Your task to perform on an android device: What is the recent news? Image 0: 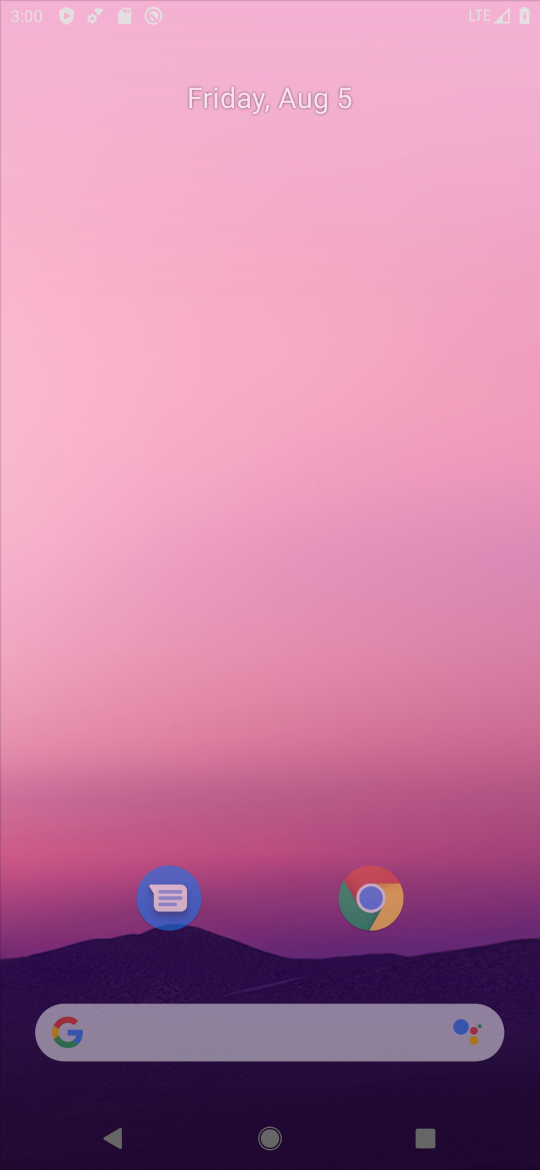
Step 0: press home button
Your task to perform on an android device: What is the recent news? Image 1: 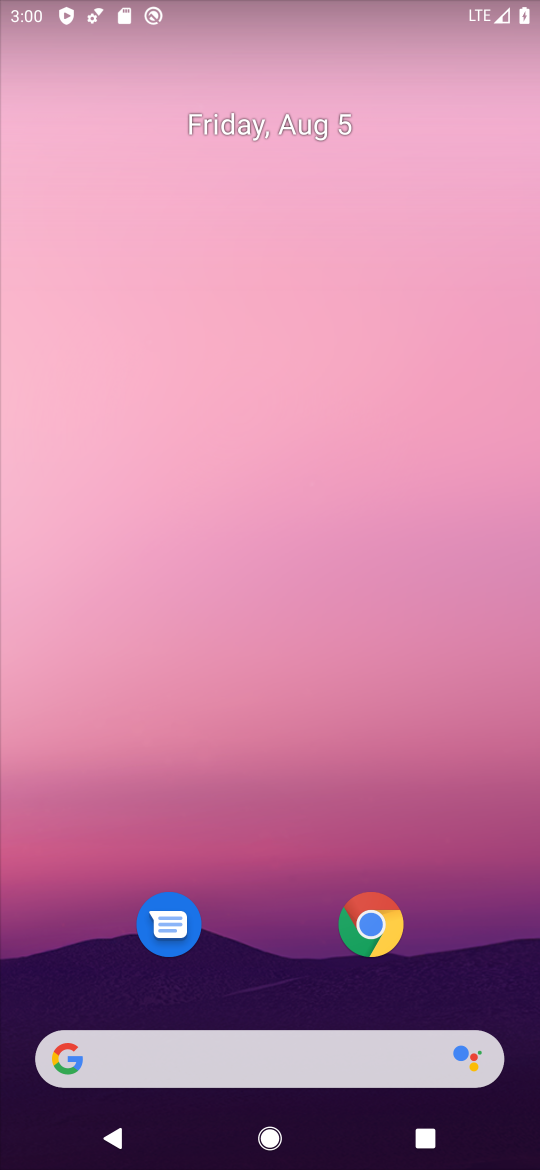
Step 1: drag from (442, 641) to (460, 177)
Your task to perform on an android device: What is the recent news? Image 2: 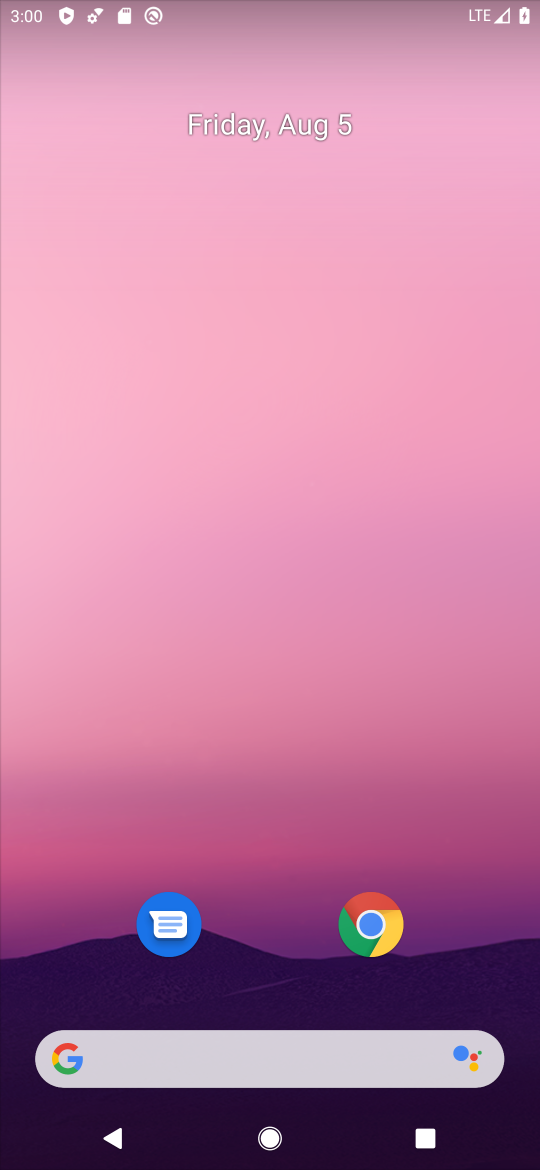
Step 2: drag from (241, 856) to (368, 122)
Your task to perform on an android device: What is the recent news? Image 3: 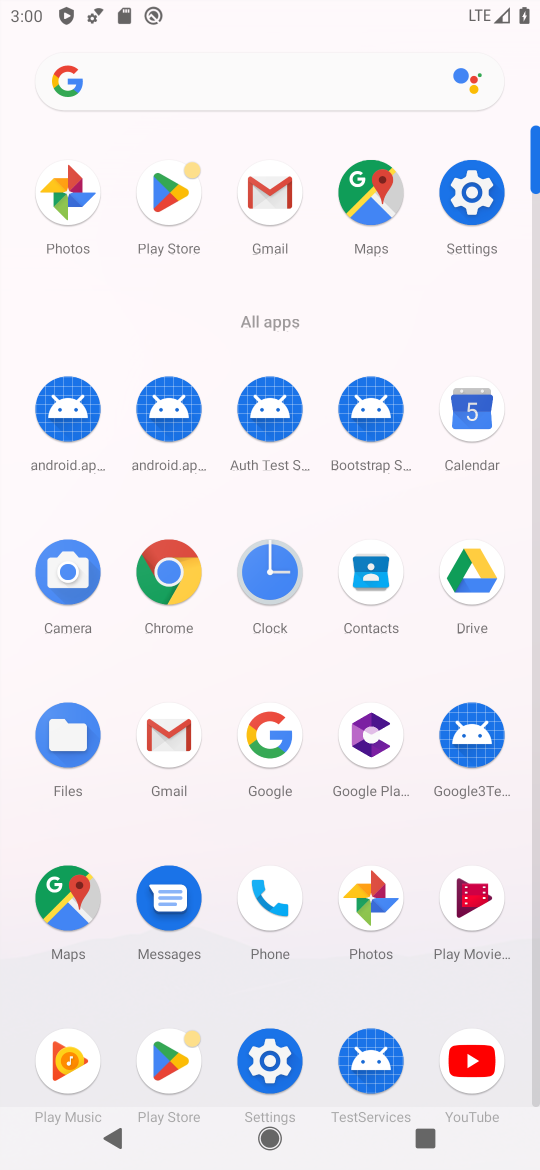
Step 3: click (365, 912)
Your task to perform on an android device: What is the recent news? Image 4: 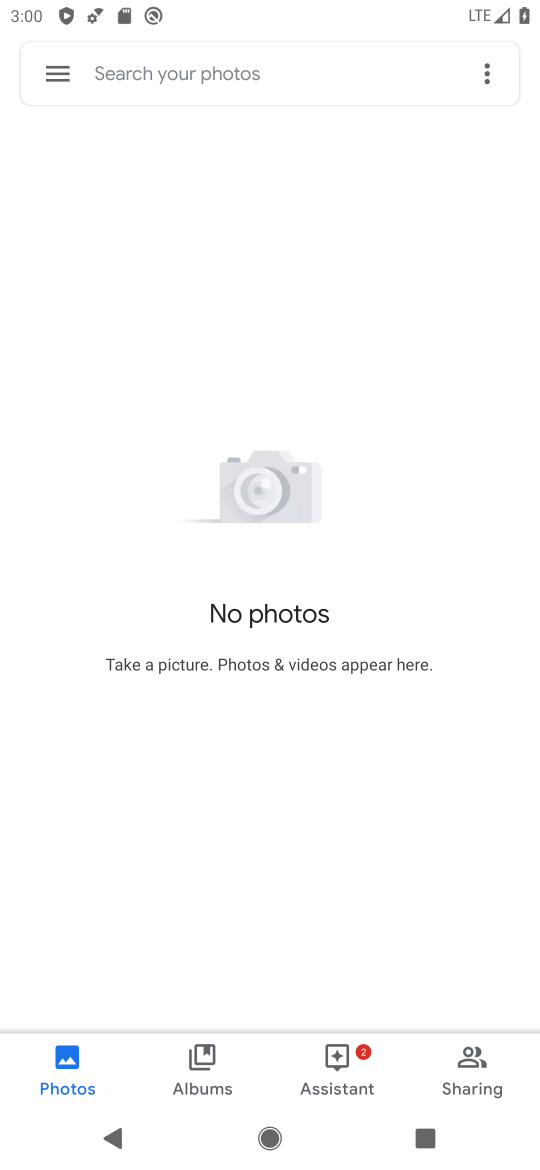
Step 4: press home button
Your task to perform on an android device: What is the recent news? Image 5: 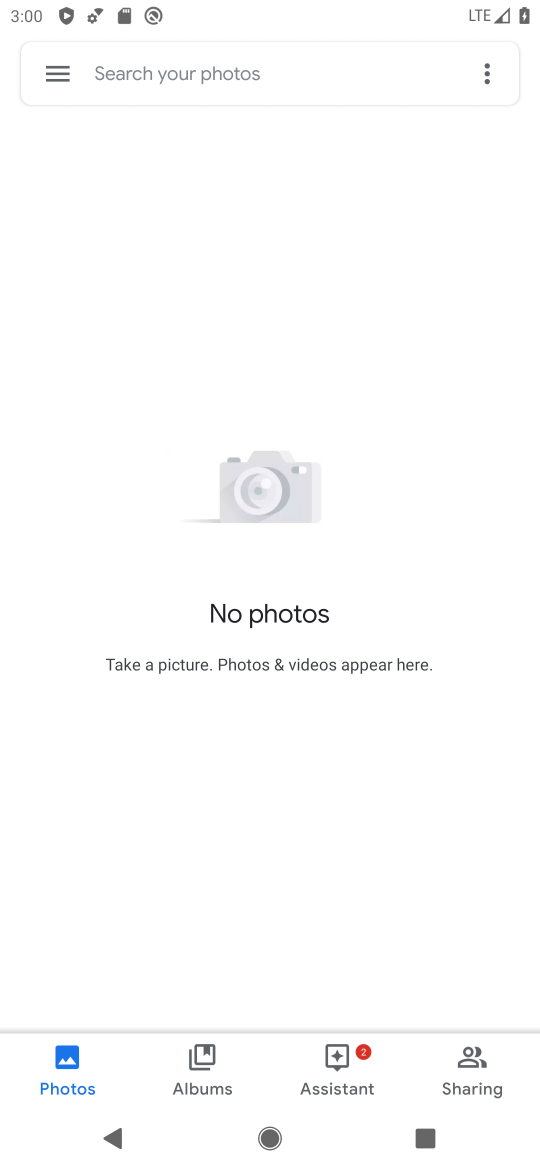
Step 5: press home button
Your task to perform on an android device: What is the recent news? Image 6: 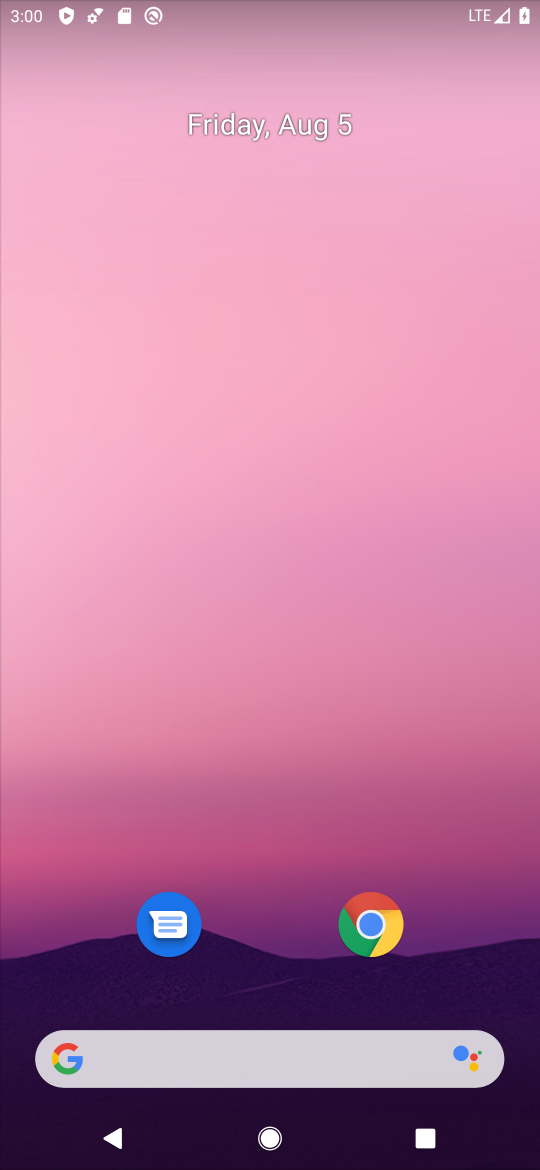
Step 6: drag from (274, 929) to (351, 172)
Your task to perform on an android device: What is the recent news? Image 7: 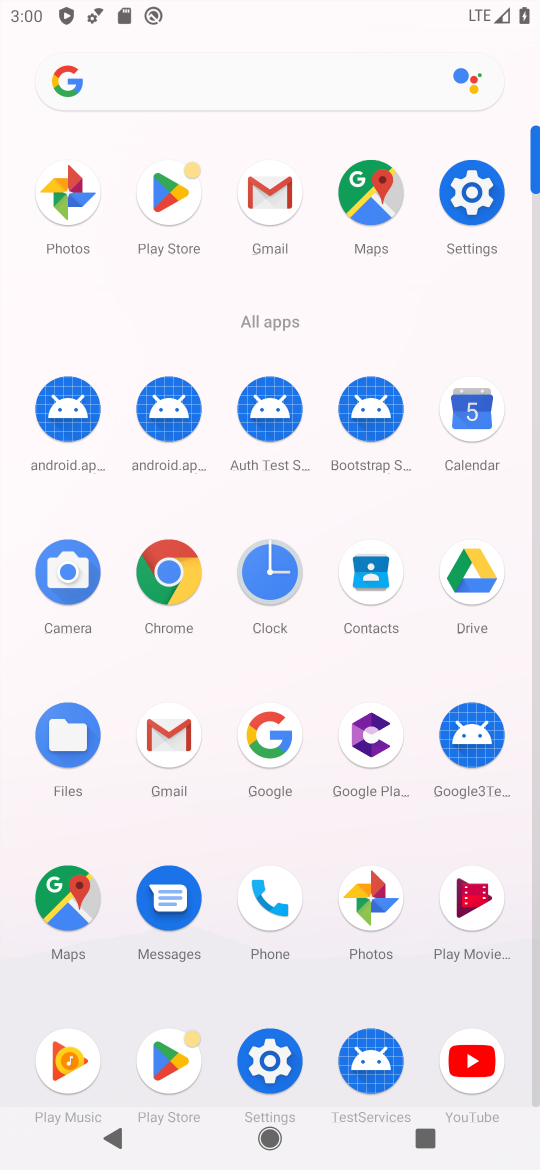
Step 7: click (163, 566)
Your task to perform on an android device: What is the recent news? Image 8: 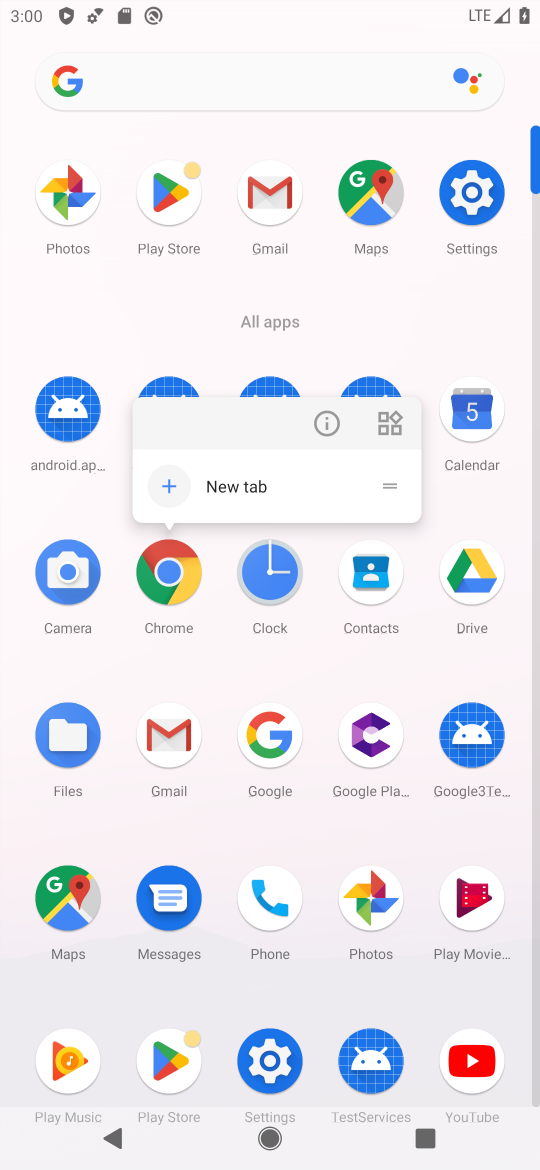
Step 8: click (169, 571)
Your task to perform on an android device: What is the recent news? Image 9: 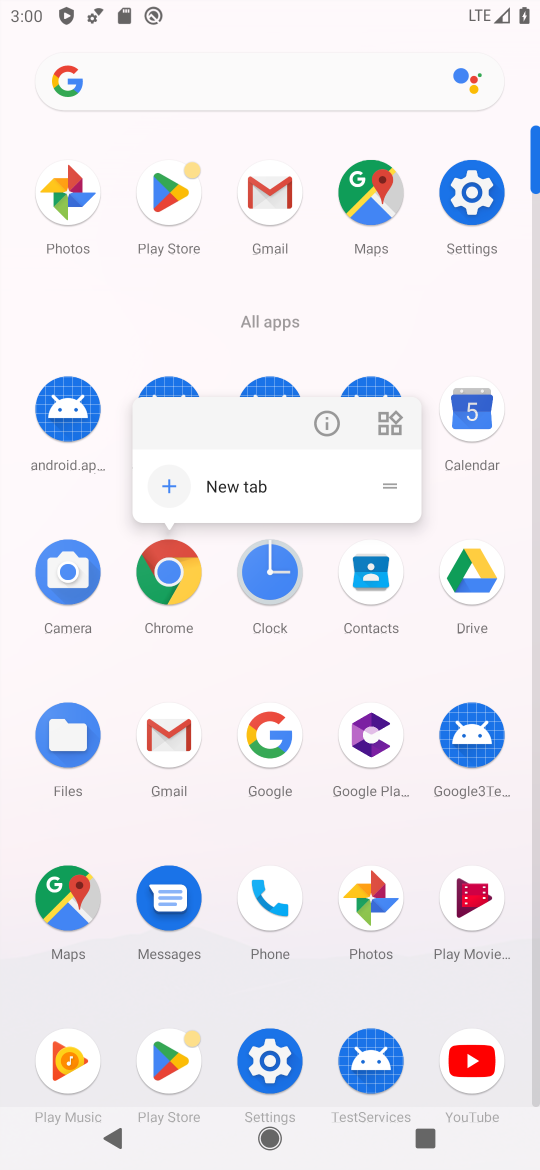
Step 9: click (169, 589)
Your task to perform on an android device: What is the recent news? Image 10: 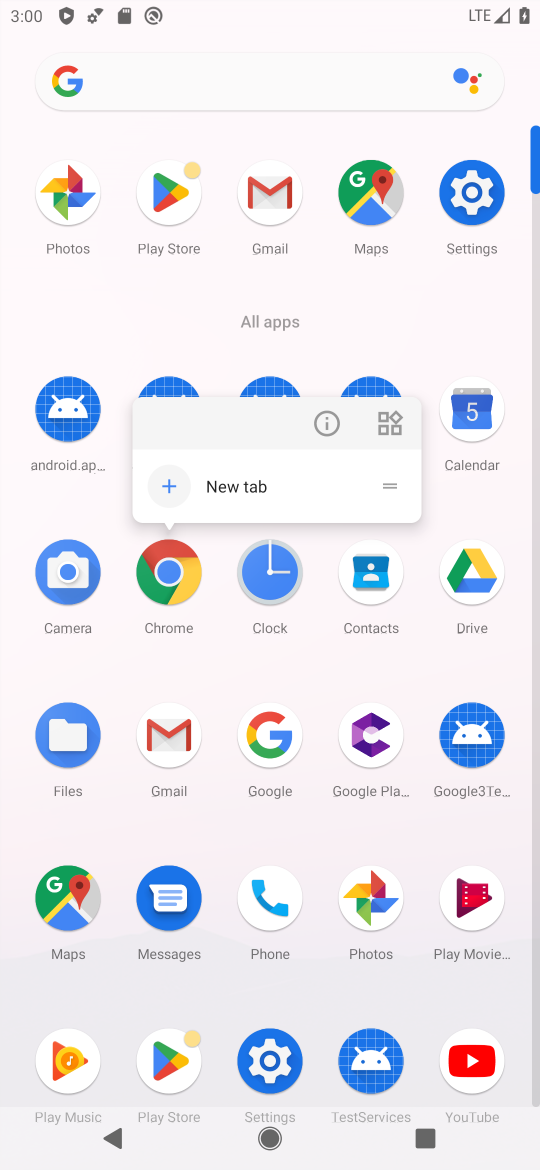
Step 10: click (169, 574)
Your task to perform on an android device: What is the recent news? Image 11: 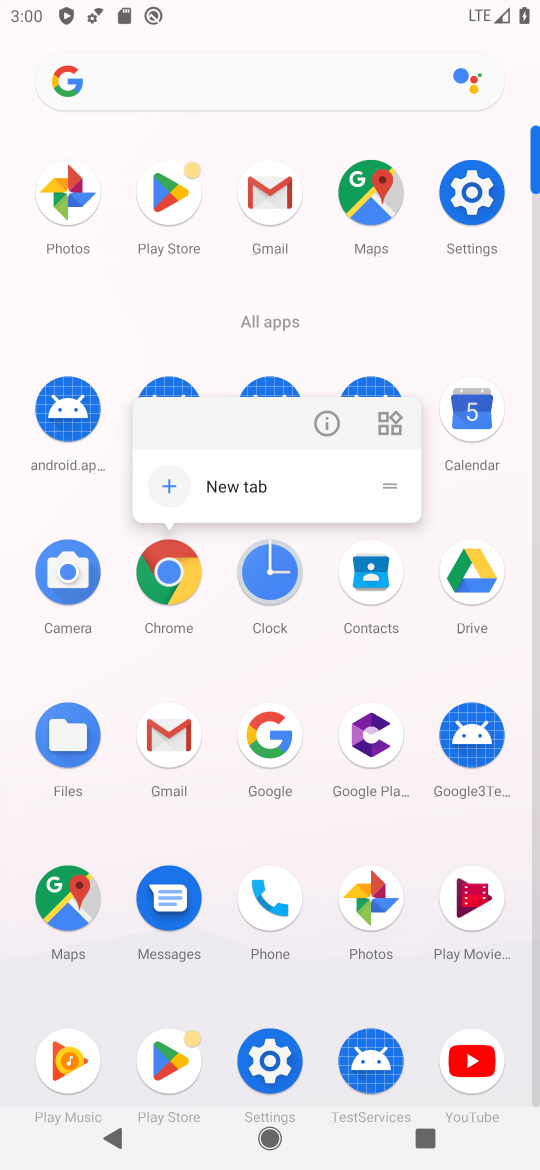
Step 11: click (239, 665)
Your task to perform on an android device: What is the recent news? Image 12: 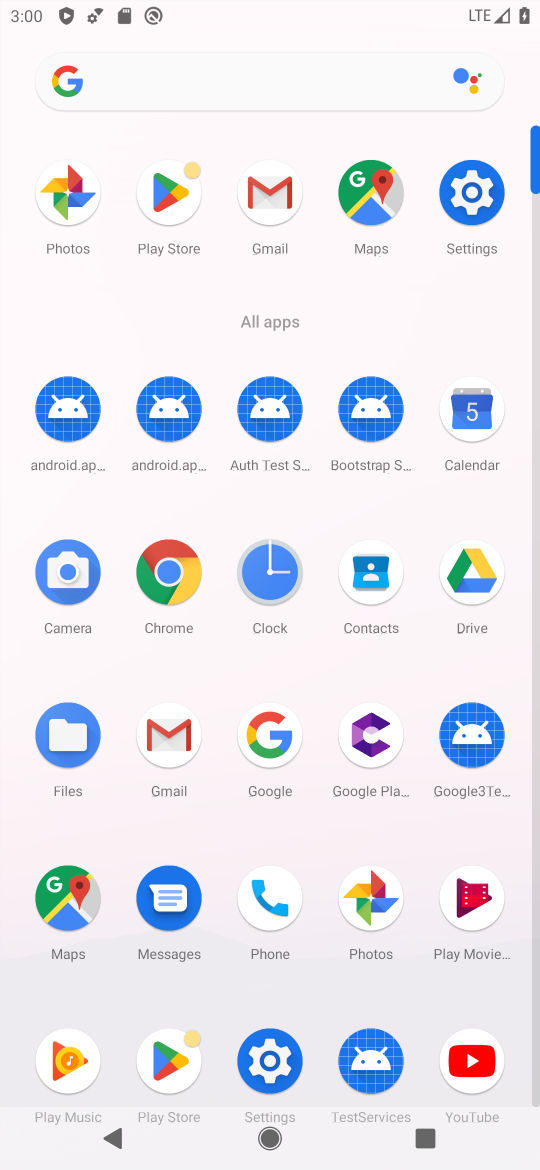
Step 12: click (165, 577)
Your task to perform on an android device: What is the recent news? Image 13: 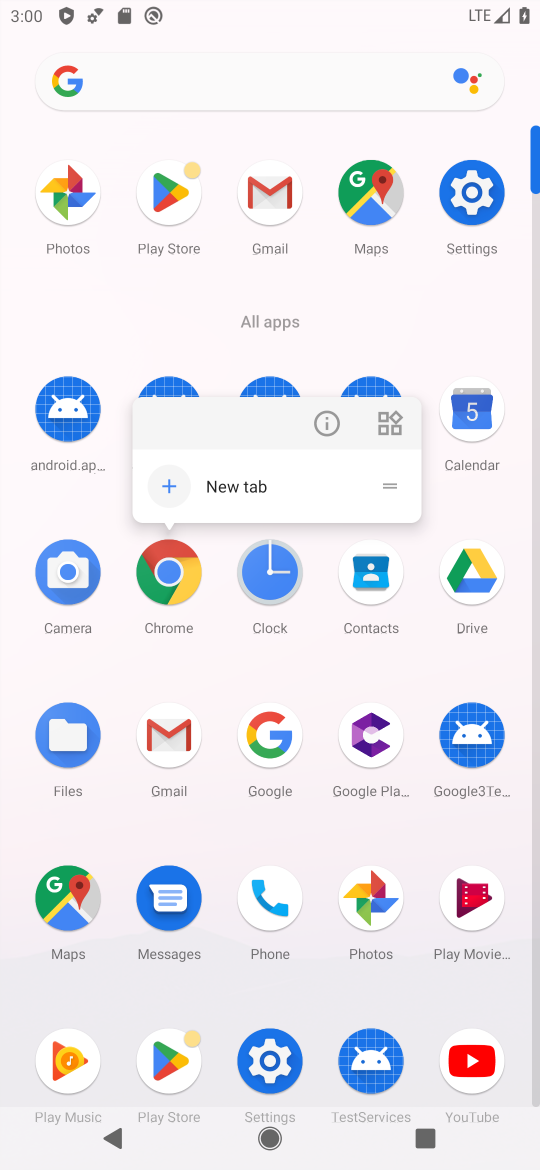
Step 13: click (165, 577)
Your task to perform on an android device: What is the recent news? Image 14: 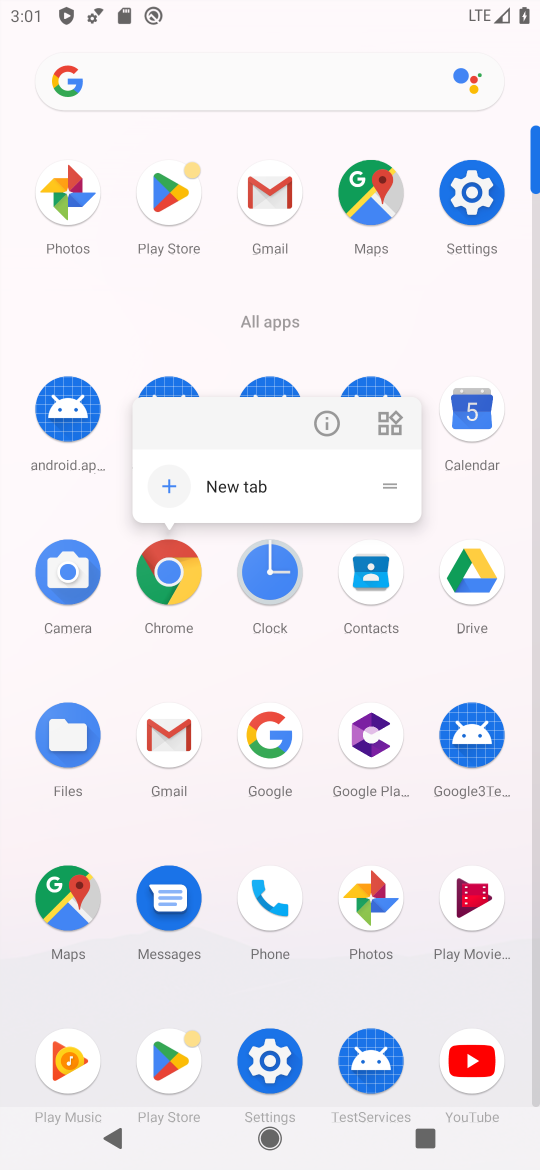
Step 14: click (222, 687)
Your task to perform on an android device: What is the recent news? Image 15: 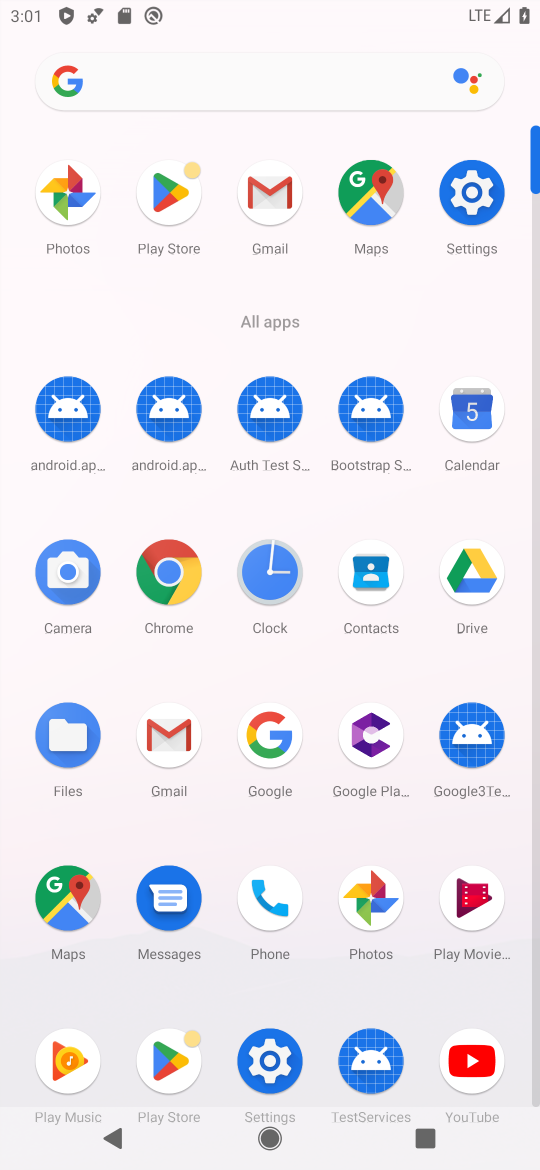
Step 15: click (167, 575)
Your task to perform on an android device: What is the recent news? Image 16: 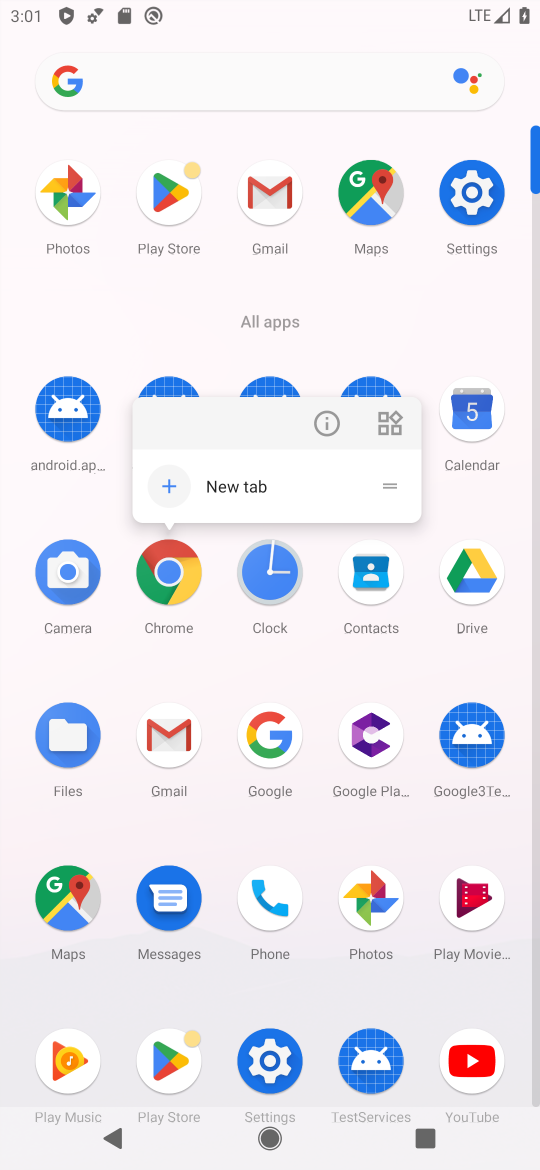
Step 16: click (167, 574)
Your task to perform on an android device: What is the recent news? Image 17: 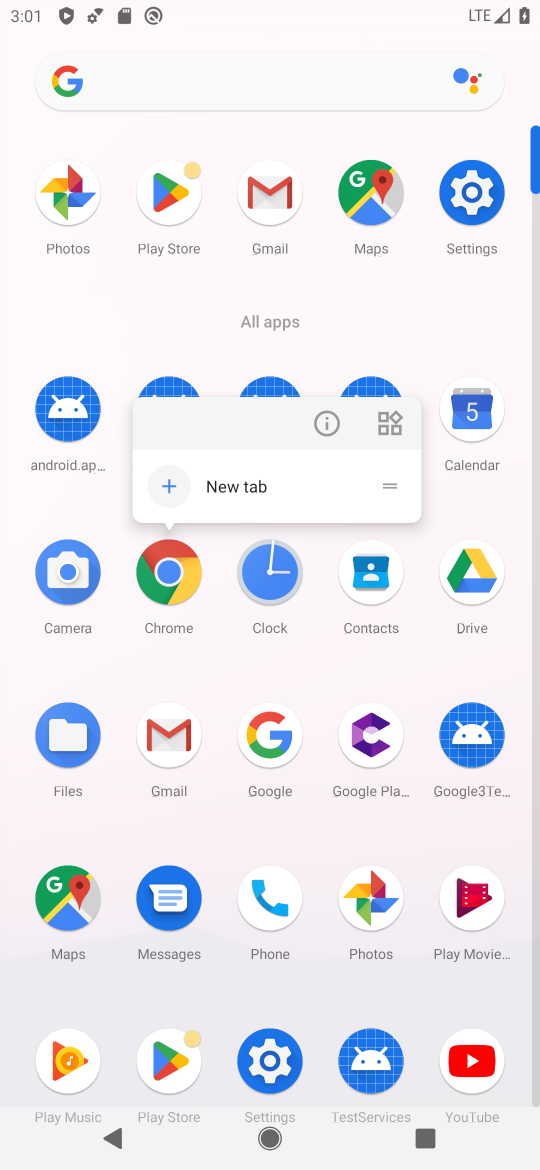
Step 17: task complete